Your task to perform on an android device: Go to Google maps Image 0: 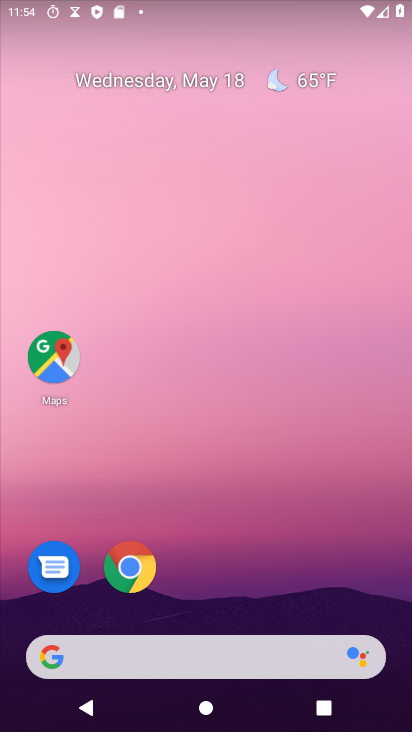
Step 0: click (63, 352)
Your task to perform on an android device: Go to Google maps Image 1: 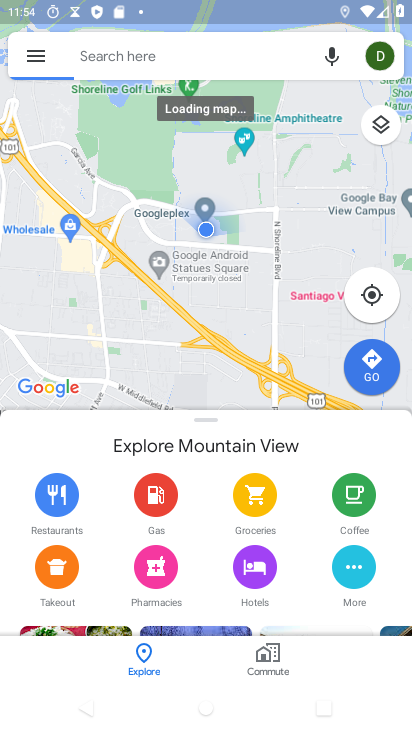
Step 1: task complete